Your task to perform on an android device: read, delete, or share a saved page in the chrome app Image 0: 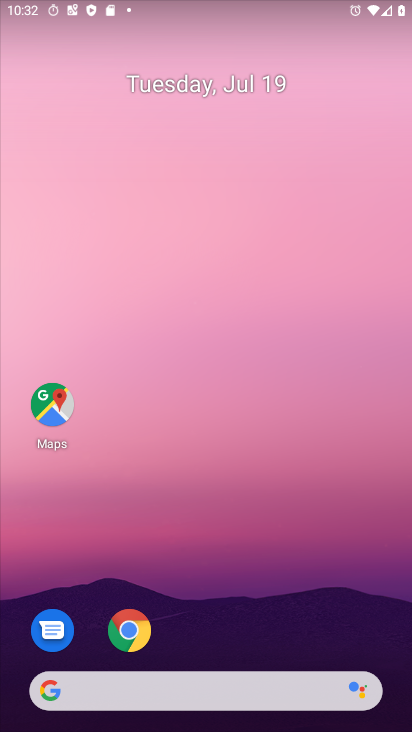
Step 0: press home button
Your task to perform on an android device: read, delete, or share a saved page in the chrome app Image 1: 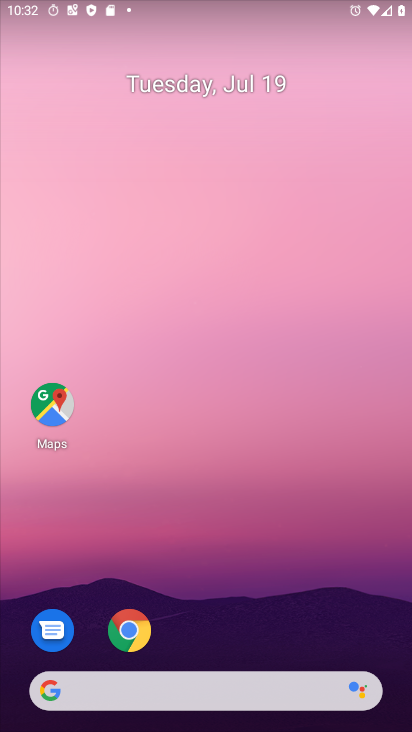
Step 1: drag from (244, 626) to (210, 40)
Your task to perform on an android device: read, delete, or share a saved page in the chrome app Image 2: 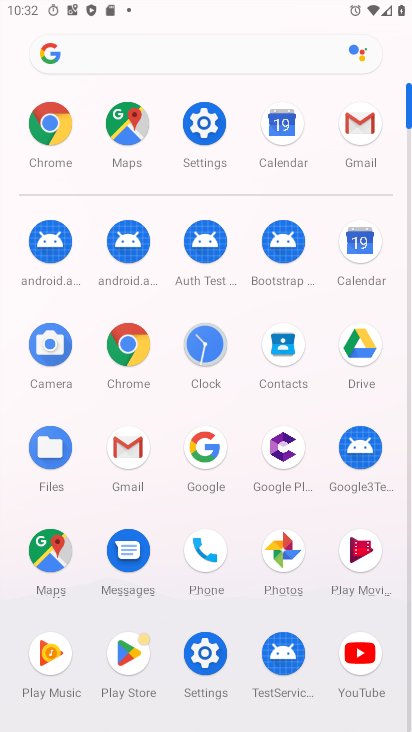
Step 2: click (115, 450)
Your task to perform on an android device: read, delete, or share a saved page in the chrome app Image 3: 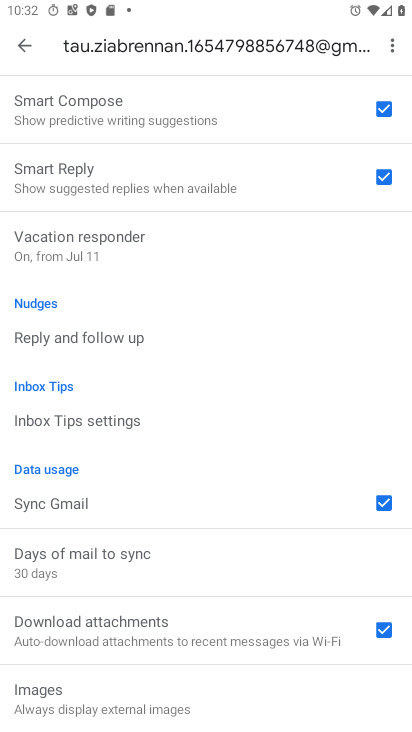
Step 3: click (17, 41)
Your task to perform on an android device: read, delete, or share a saved page in the chrome app Image 4: 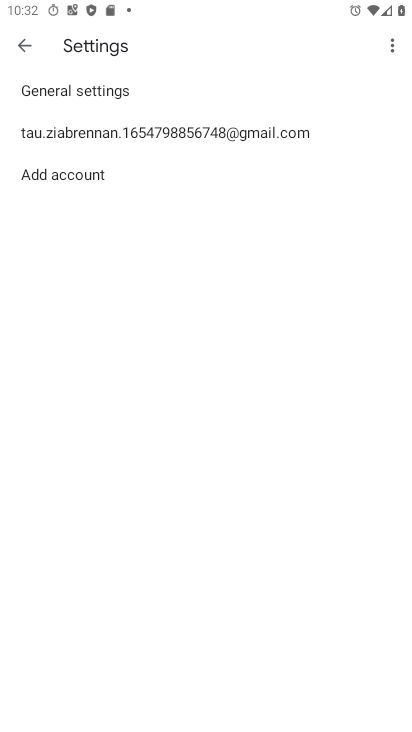
Step 4: click (59, 131)
Your task to perform on an android device: read, delete, or share a saved page in the chrome app Image 5: 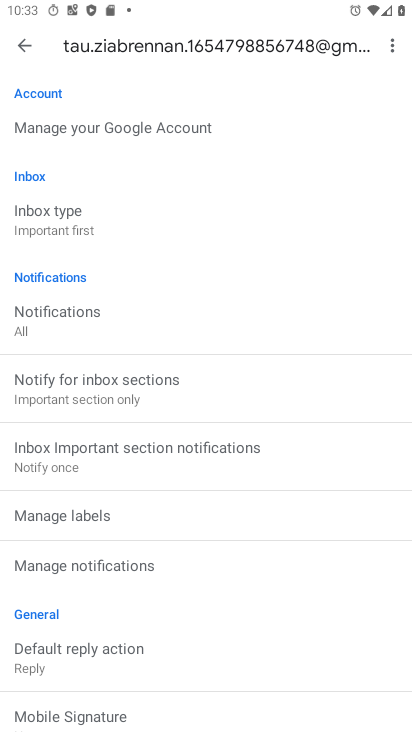
Step 5: click (48, 221)
Your task to perform on an android device: read, delete, or share a saved page in the chrome app Image 6: 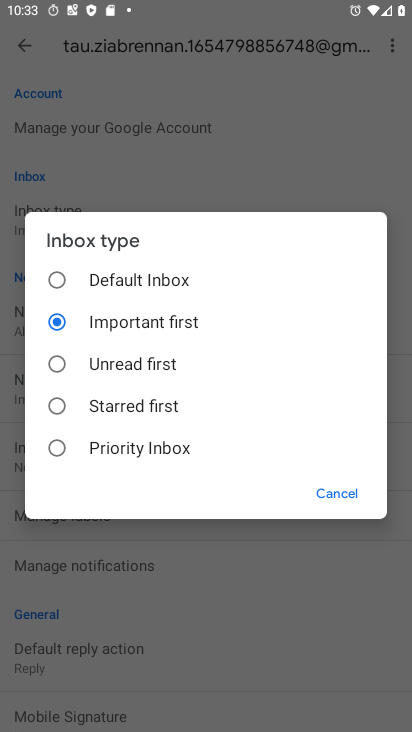
Step 6: click (138, 281)
Your task to perform on an android device: read, delete, or share a saved page in the chrome app Image 7: 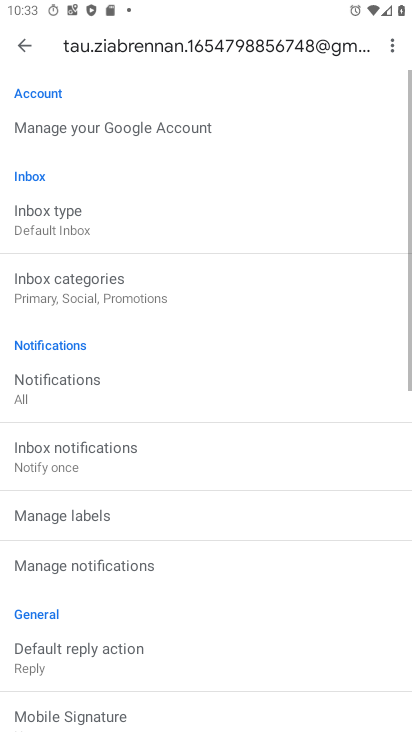
Step 7: click (57, 285)
Your task to perform on an android device: read, delete, or share a saved page in the chrome app Image 8: 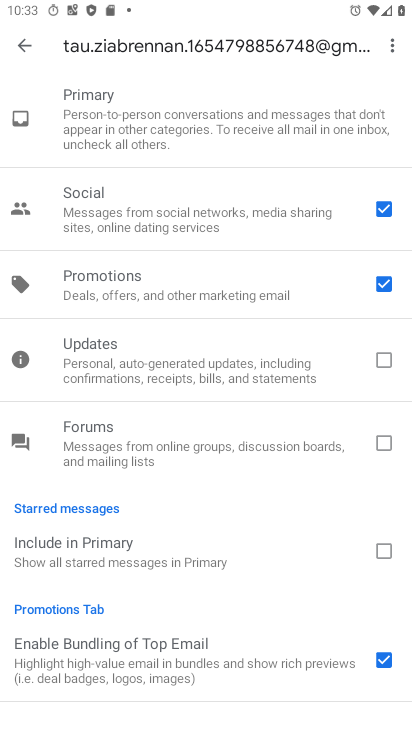
Step 8: click (378, 278)
Your task to perform on an android device: read, delete, or share a saved page in the chrome app Image 9: 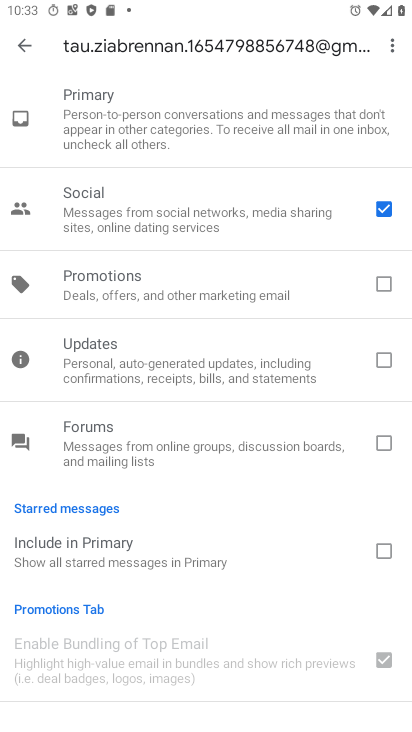
Step 9: click (385, 200)
Your task to perform on an android device: read, delete, or share a saved page in the chrome app Image 10: 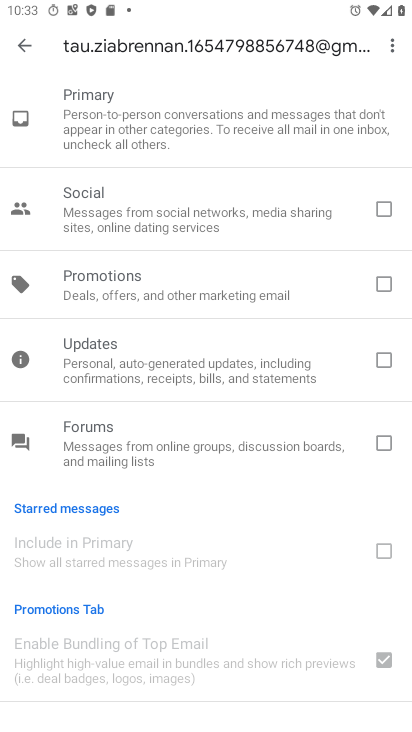
Step 10: task complete